Your task to perform on an android device: turn on data saver in the chrome app Image 0: 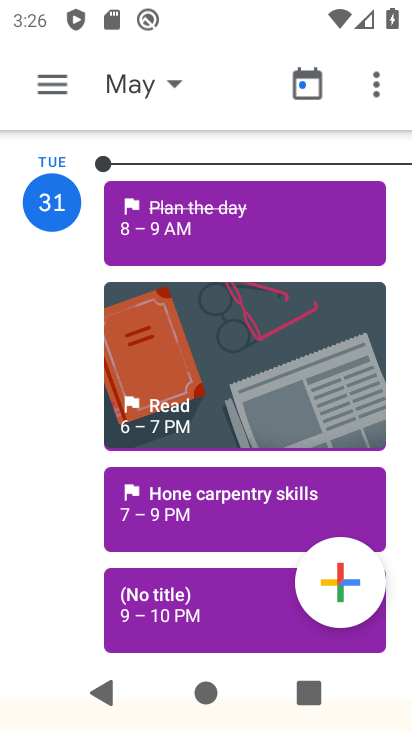
Step 0: press home button
Your task to perform on an android device: turn on data saver in the chrome app Image 1: 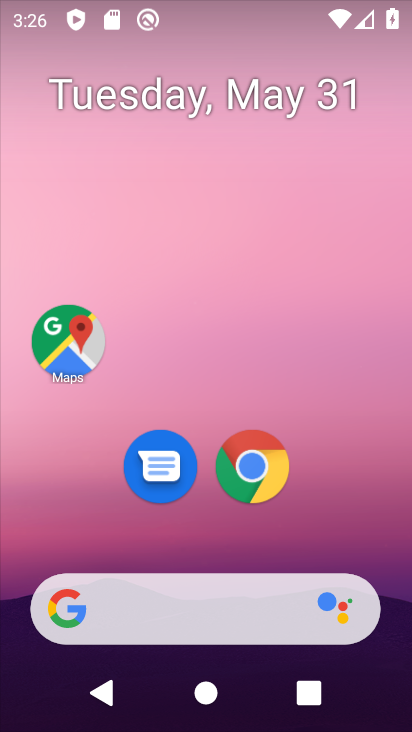
Step 1: click (279, 484)
Your task to perform on an android device: turn on data saver in the chrome app Image 2: 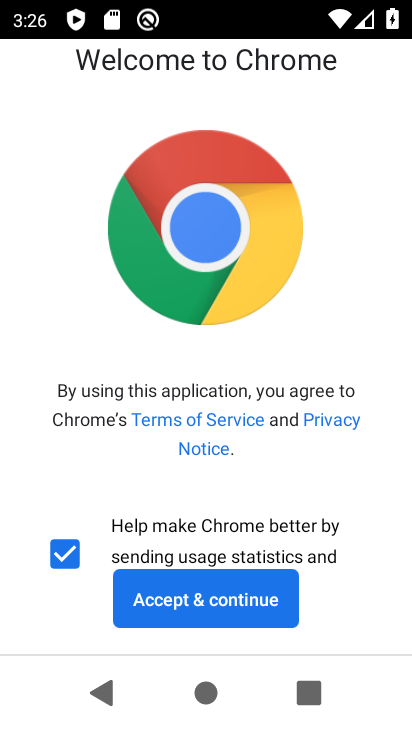
Step 2: click (230, 616)
Your task to perform on an android device: turn on data saver in the chrome app Image 3: 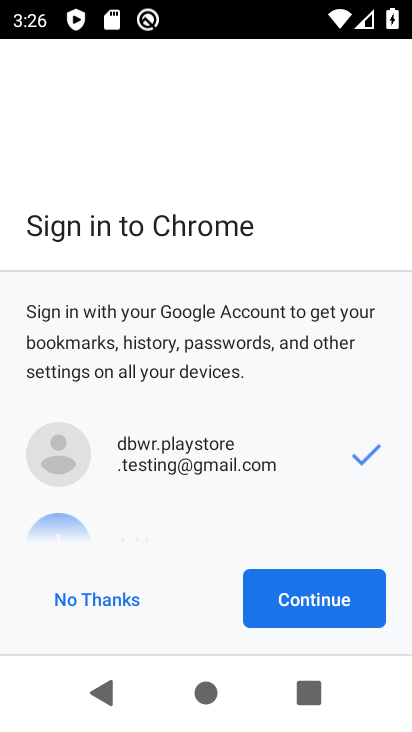
Step 3: click (330, 606)
Your task to perform on an android device: turn on data saver in the chrome app Image 4: 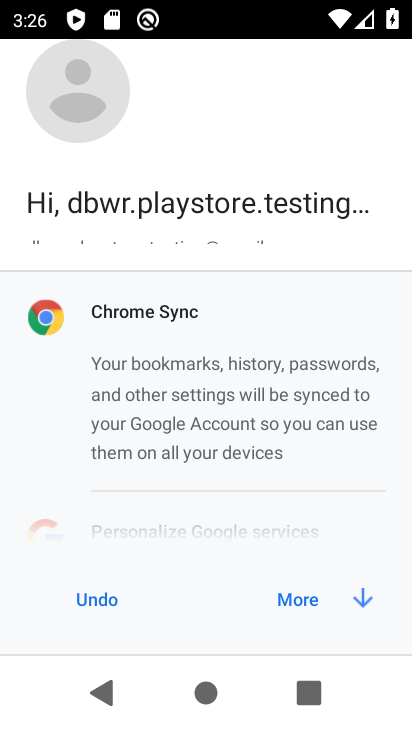
Step 4: click (321, 607)
Your task to perform on an android device: turn on data saver in the chrome app Image 5: 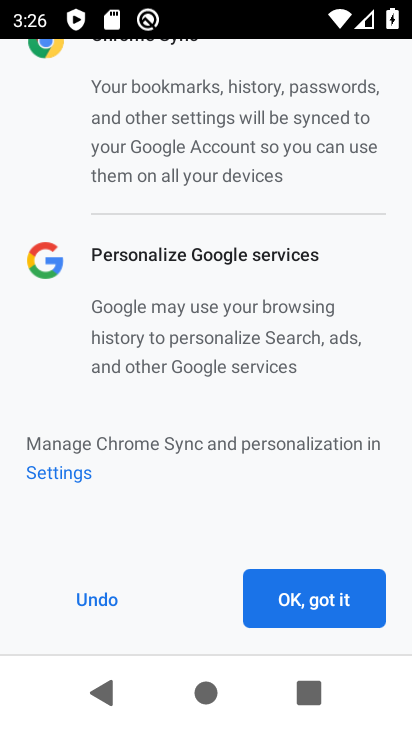
Step 5: click (321, 607)
Your task to perform on an android device: turn on data saver in the chrome app Image 6: 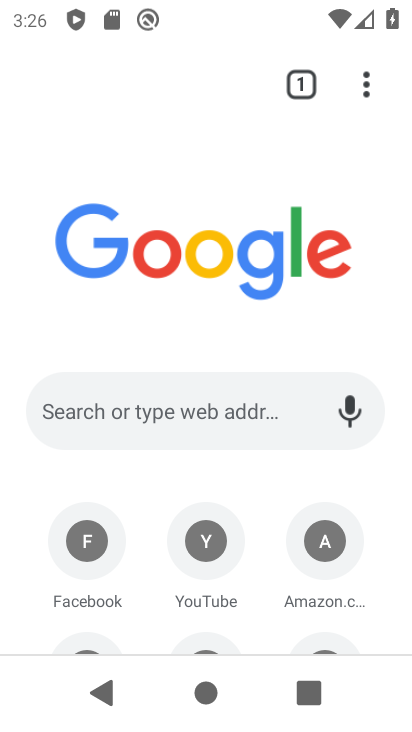
Step 6: drag from (356, 98) to (218, 544)
Your task to perform on an android device: turn on data saver in the chrome app Image 7: 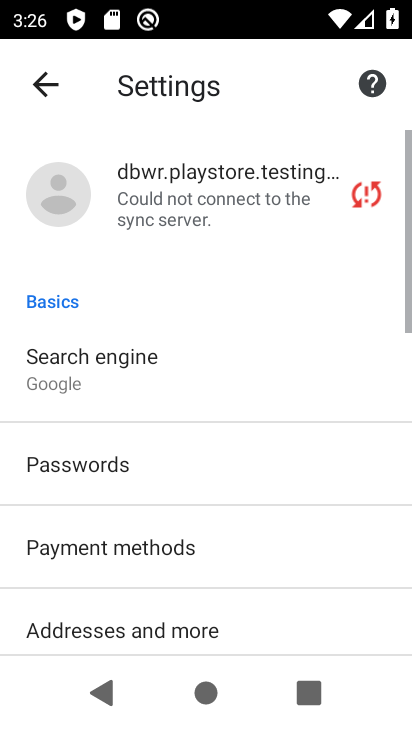
Step 7: drag from (164, 590) to (251, 227)
Your task to perform on an android device: turn on data saver in the chrome app Image 8: 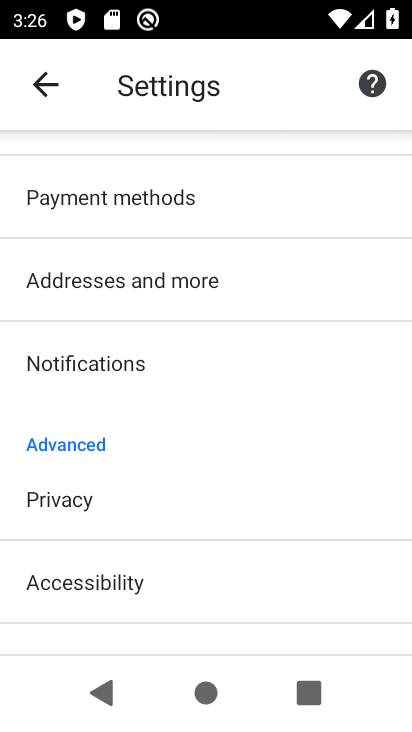
Step 8: drag from (177, 610) to (221, 359)
Your task to perform on an android device: turn on data saver in the chrome app Image 9: 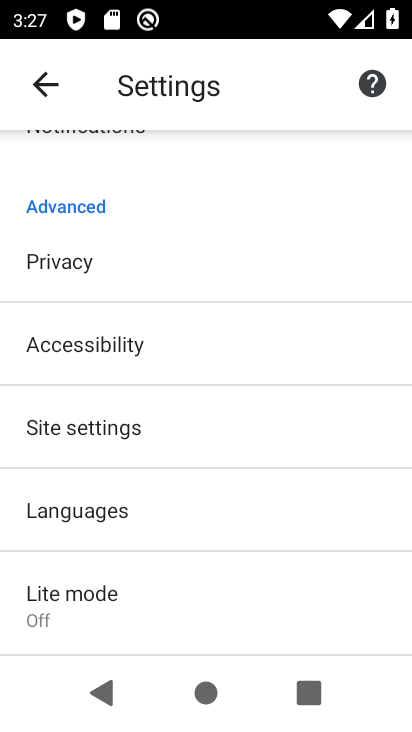
Step 9: click (165, 607)
Your task to perform on an android device: turn on data saver in the chrome app Image 10: 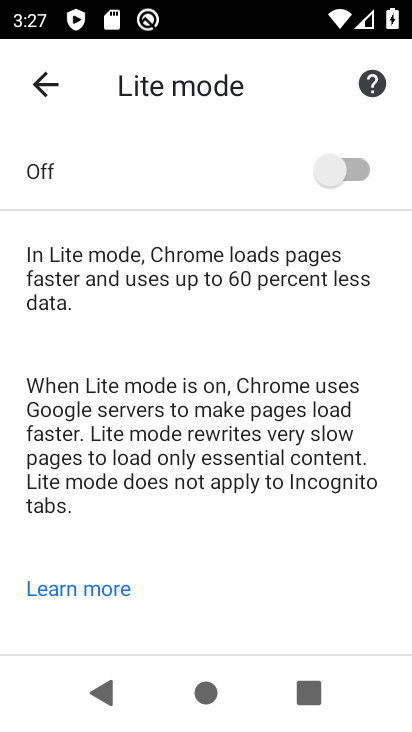
Step 10: click (376, 174)
Your task to perform on an android device: turn on data saver in the chrome app Image 11: 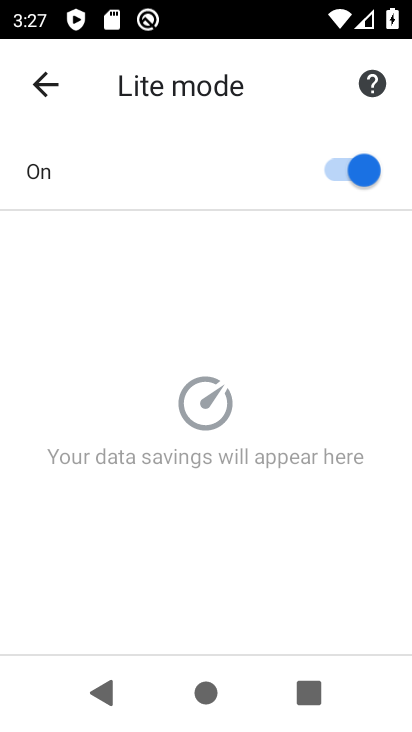
Step 11: task complete